Your task to perform on an android device: check data usage Image 0: 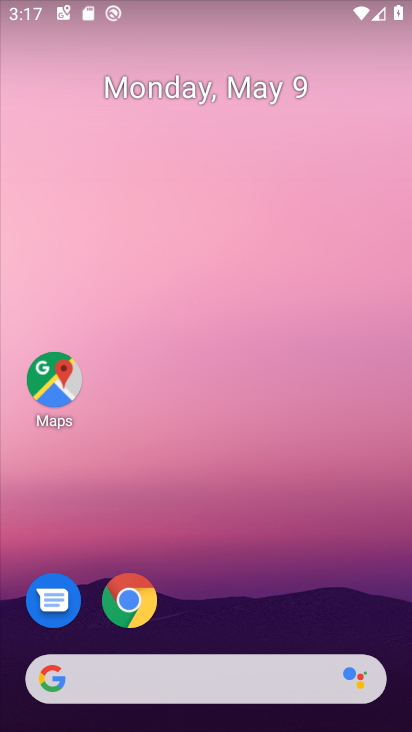
Step 0: drag from (209, 593) to (240, 186)
Your task to perform on an android device: check data usage Image 1: 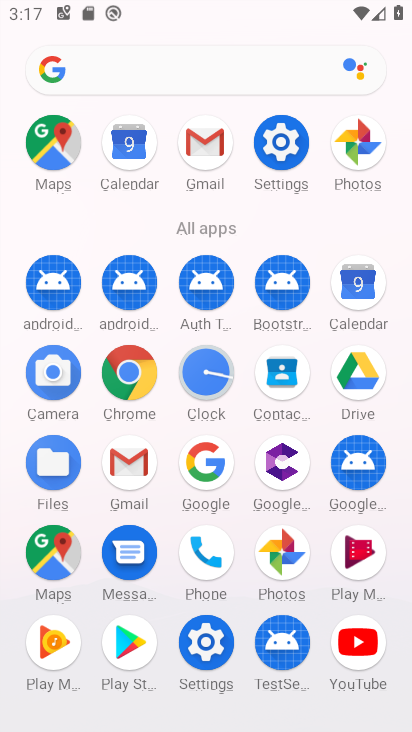
Step 1: click (294, 141)
Your task to perform on an android device: check data usage Image 2: 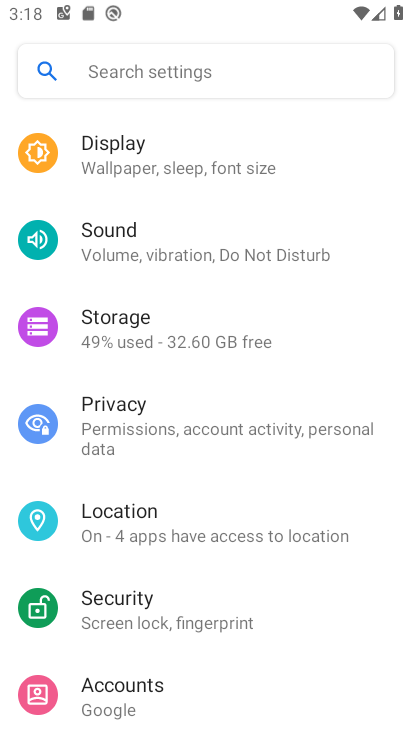
Step 2: drag from (247, 358) to (258, 660)
Your task to perform on an android device: check data usage Image 3: 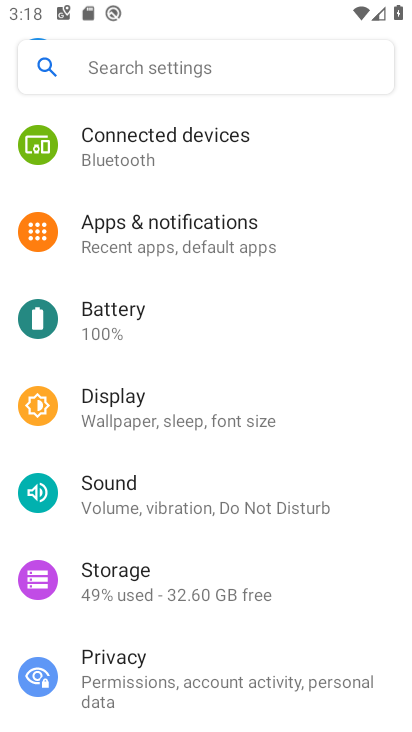
Step 3: drag from (259, 292) to (256, 699)
Your task to perform on an android device: check data usage Image 4: 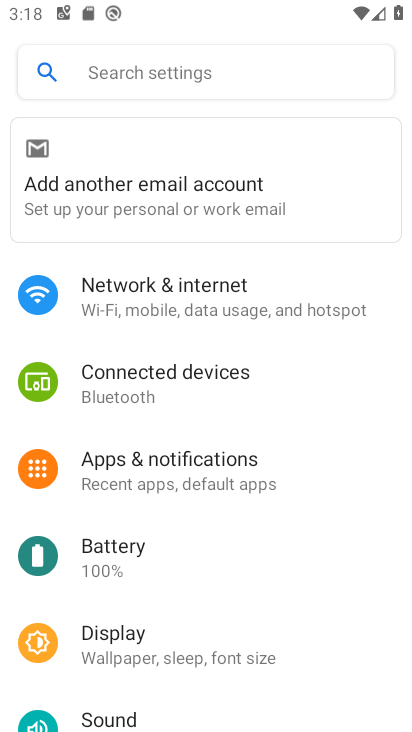
Step 4: click (234, 323)
Your task to perform on an android device: check data usage Image 5: 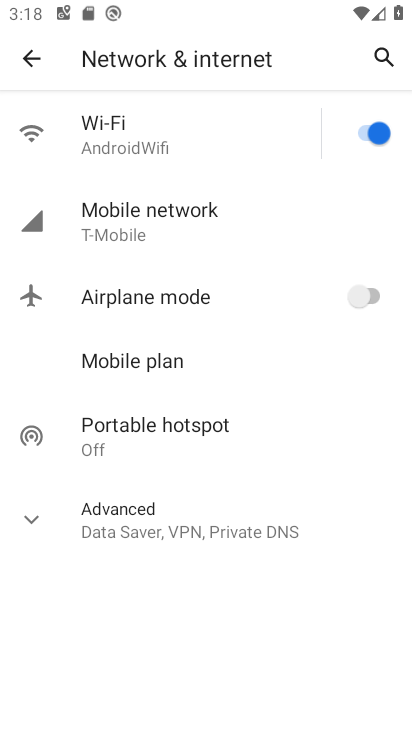
Step 5: click (223, 220)
Your task to perform on an android device: check data usage Image 6: 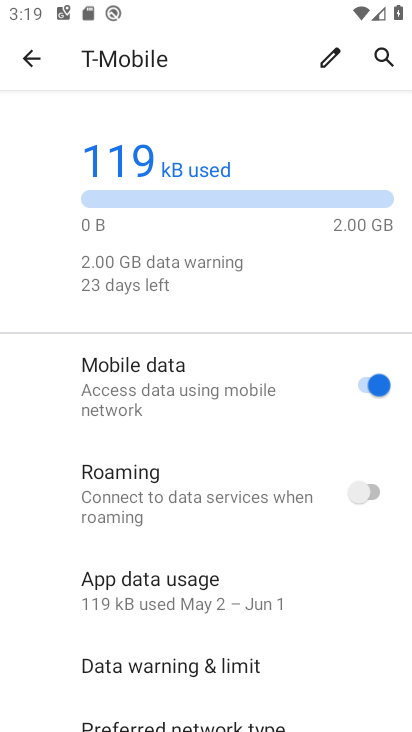
Step 6: click (222, 285)
Your task to perform on an android device: check data usage Image 7: 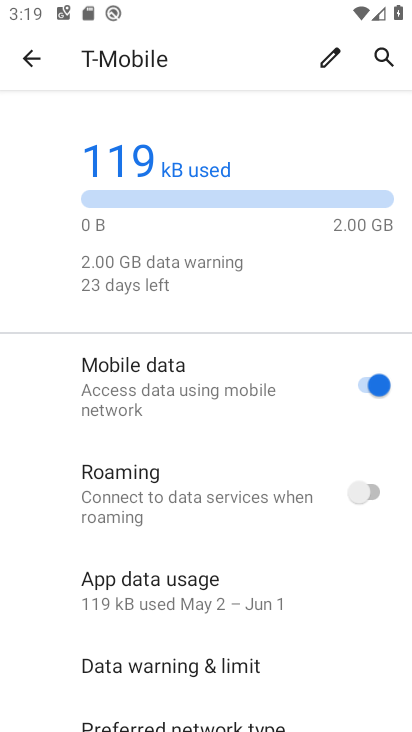
Step 7: click (220, 586)
Your task to perform on an android device: check data usage Image 8: 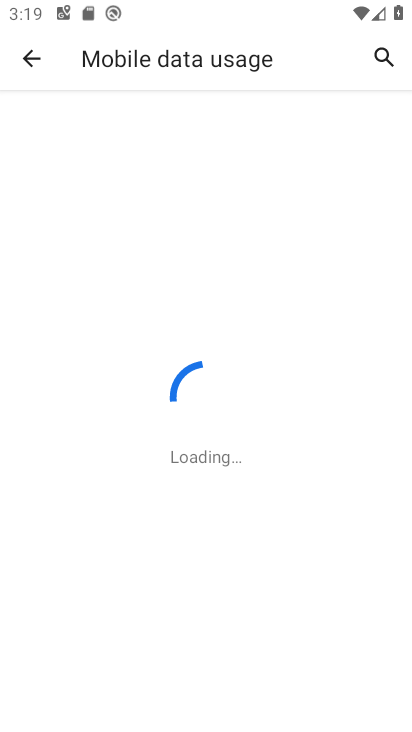
Step 8: task complete